Your task to perform on an android device: Go to Reddit.com Image 0: 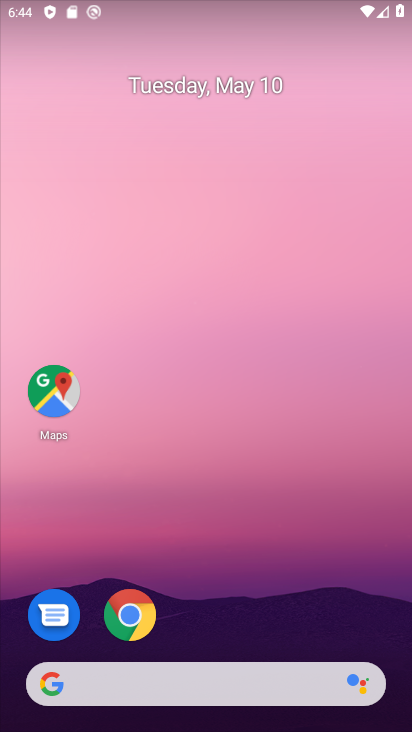
Step 0: click (125, 616)
Your task to perform on an android device: Go to Reddit.com Image 1: 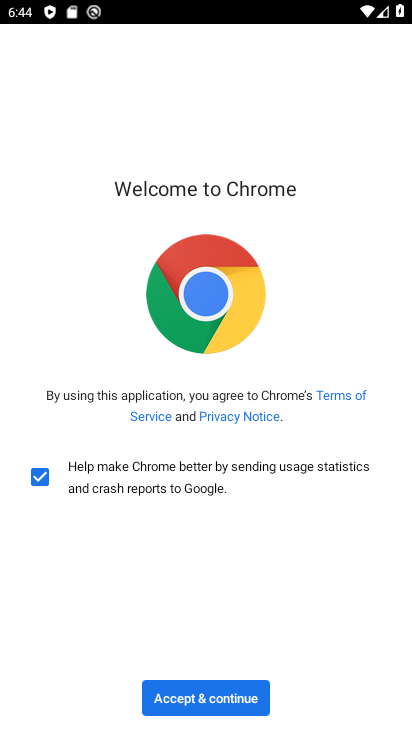
Step 1: click (208, 703)
Your task to perform on an android device: Go to Reddit.com Image 2: 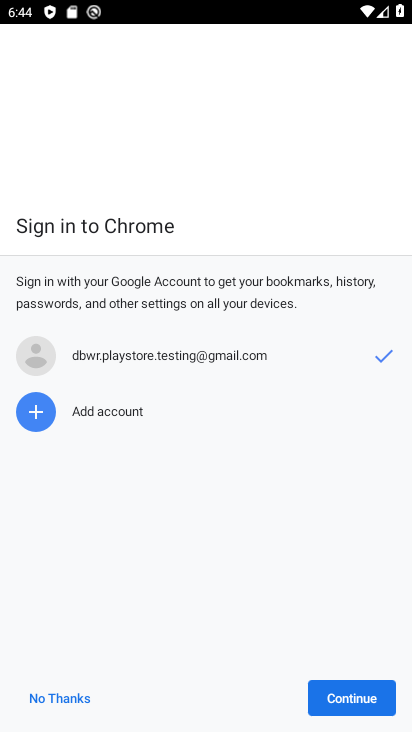
Step 2: click (339, 687)
Your task to perform on an android device: Go to Reddit.com Image 3: 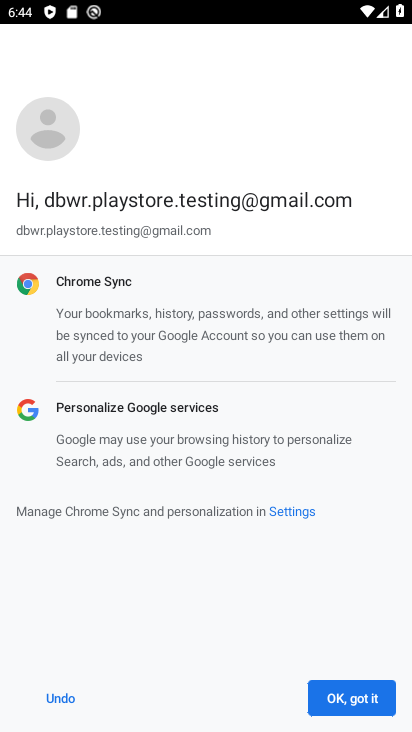
Step 3: click (339, 687)
Your task to perform on an android device: Go to Reddit.com Image 4: 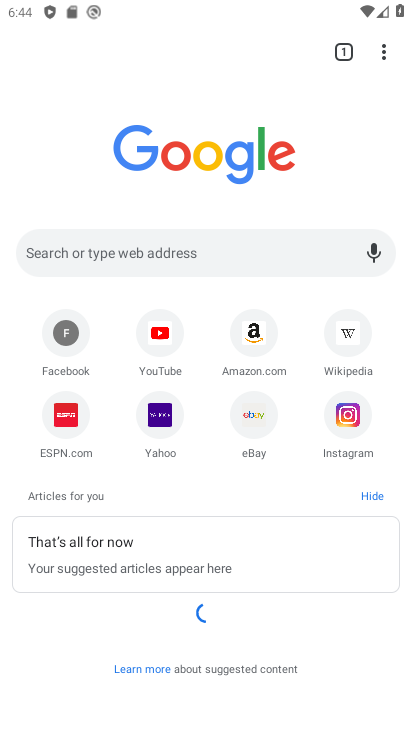
Step 4: click (193, 232)
Your task to perform on an android device: Go to Reddit.com Image 5: 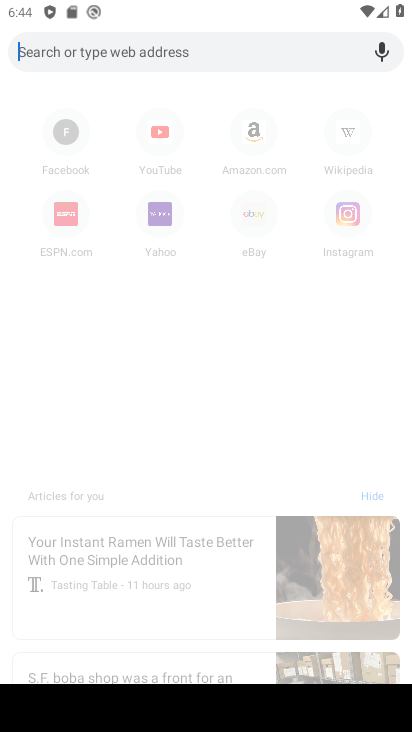
Step 5: type "reddit.com"
Your task to perform on an android device: Go to Reddit.com Image 6: 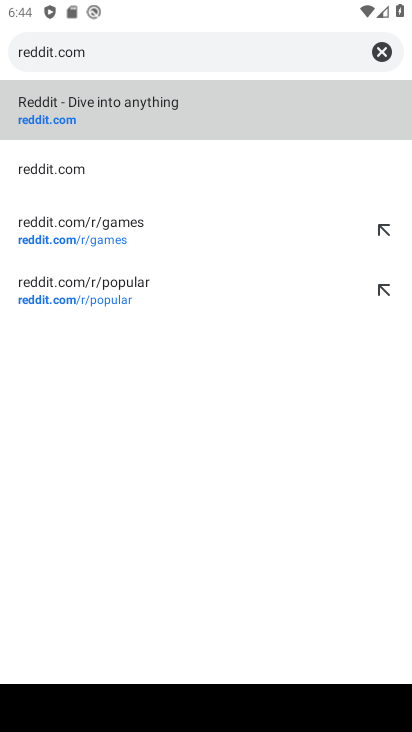
Step 6: click (68, 168)
Your task to perform on an android device: Go to Reddit.com Image 7: 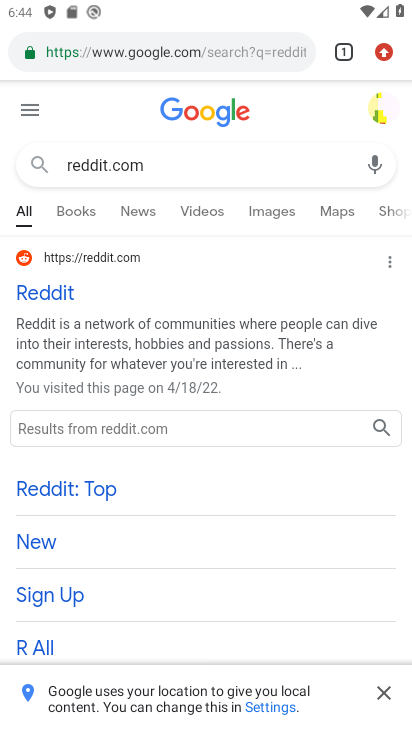
Step 7: task complete